Your task to perform on an android device: Go to notification settings Image 0: 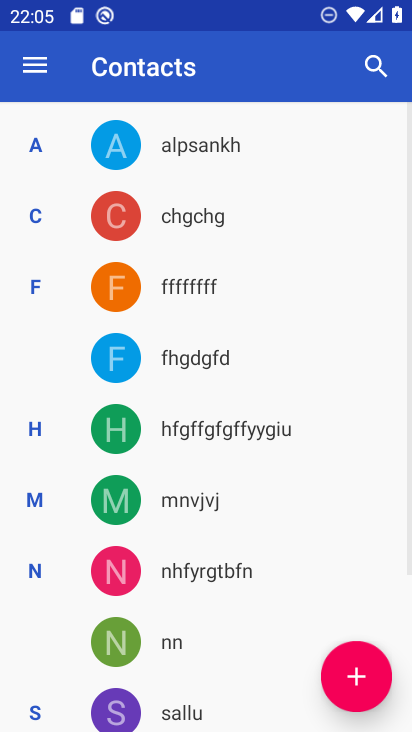
Step 0: press home button
Your task to perform on an android device: Go to notification settings Image 1: 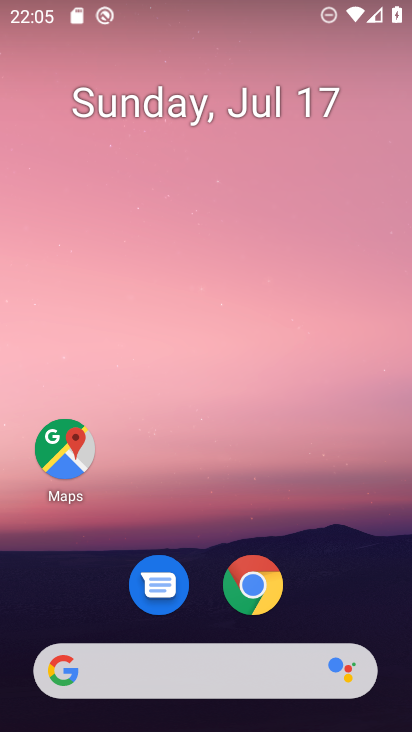
Step 1: drag from (217, 674) to (268, 72)
Your task to perform on an android device: Go to notification settings Image 2: 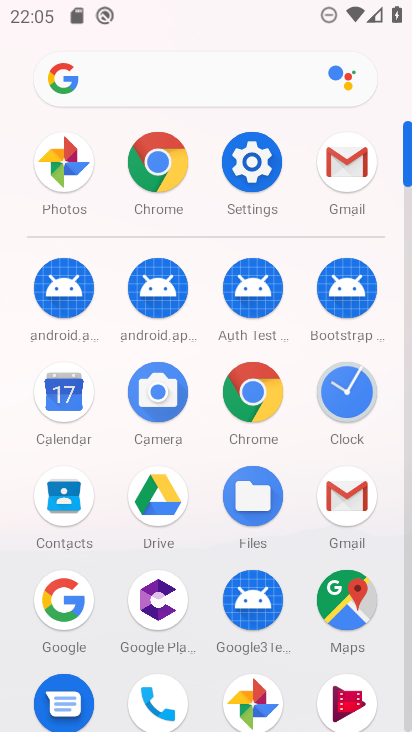
Step 2: click (257, 175)
Your task to perform on an android device: Go to notification settings Image 3: 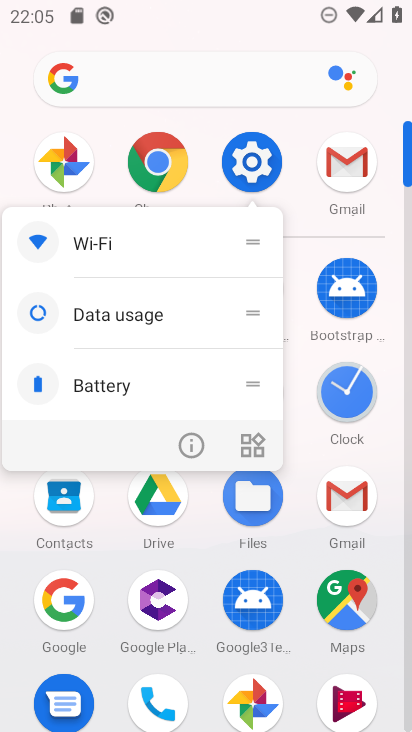
Step 3: click (252, 163)
Your task to perform on an android device: Go to notification settings Image 4: 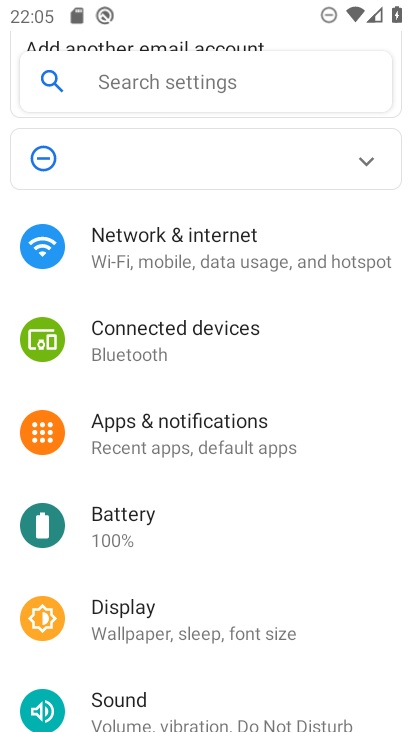
Step 4: click (239, 432)
Your task to perform on an android device: Go to notification settings Image 5: 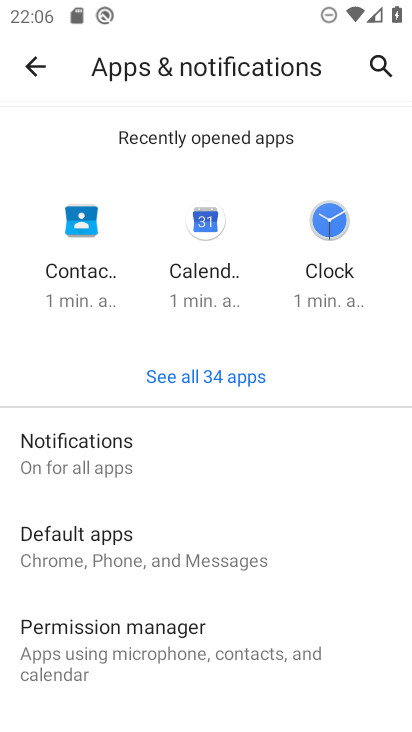
Step 5: click (106, 461)
Your task to perform on an android device: Go to notification settings Image 6: 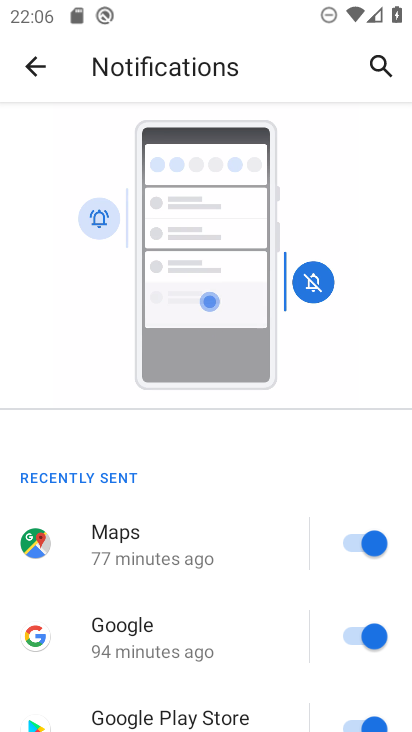
Step 6: task complete